Your task to perform on an android device: make emails show in primary in the gmail app Image 0: 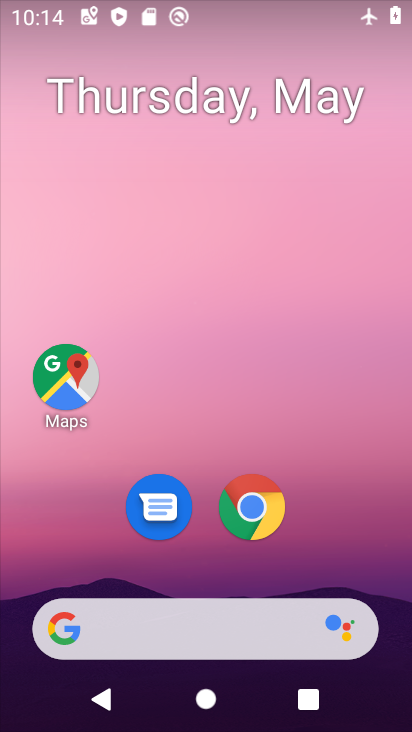
Step 0: drag from (264, 631) to (295, 120)
Your task to perform on an android device: make emails show in primary in the gmail app Image 1: 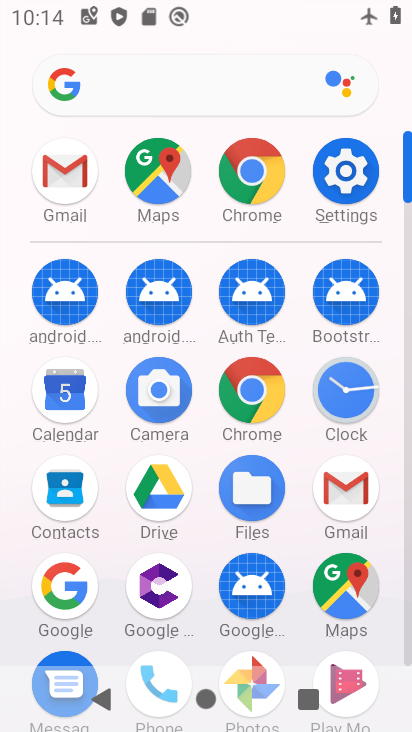
Step 1: click (341, 485)
Your task to perform on an android device: make emails show in primary in the gmail app Image 2: 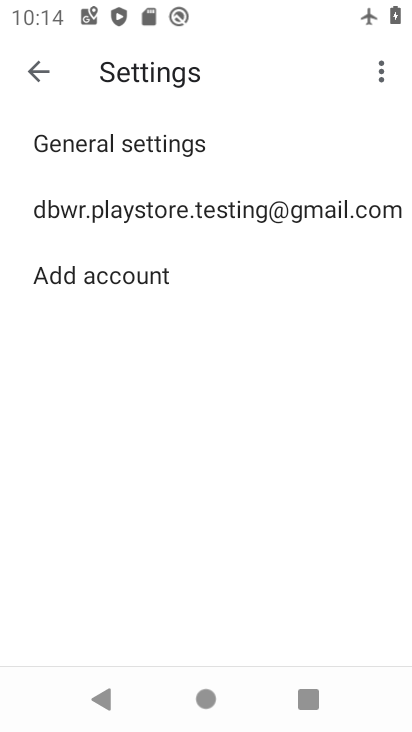
Step 2: click (40, 67)
Your task to perform on an android device: make emails show in primary in the gmail app Image 3: 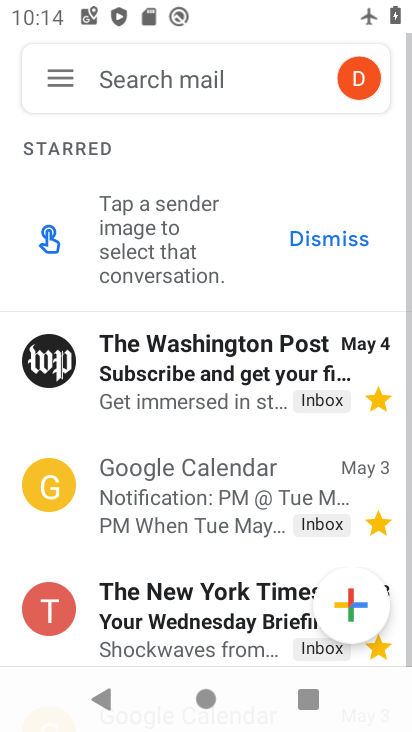
Step 3: click (66, 77)
Your task to perform on an android device: make emails show in primary in the gmail app Image 4: 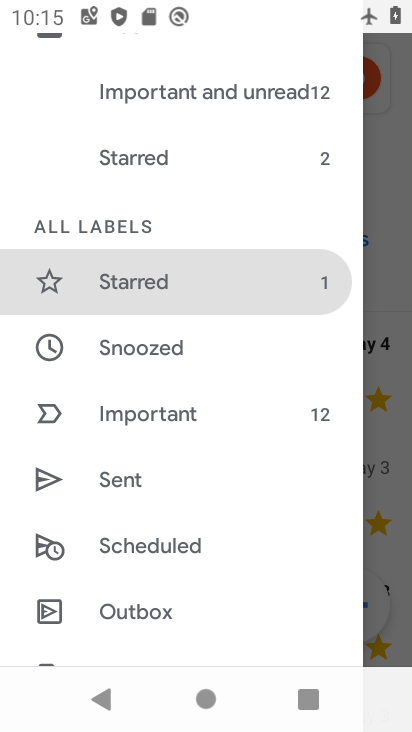
Step 4: task complete